Your task to perform on an android device: check google app version Image 0: 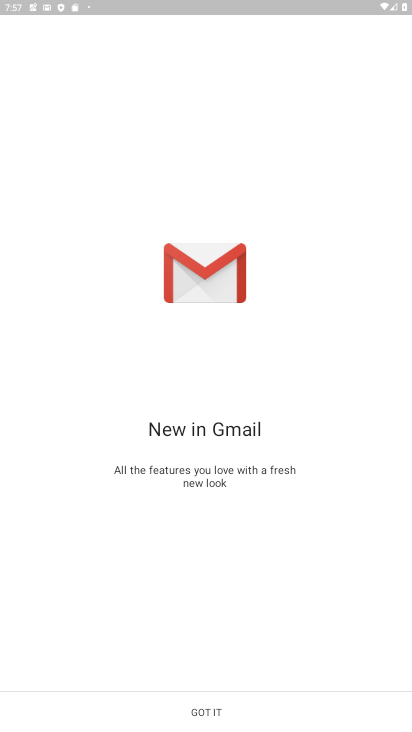
Step 0: press home button
Your task to perform on an android device: check google app version Image 1: 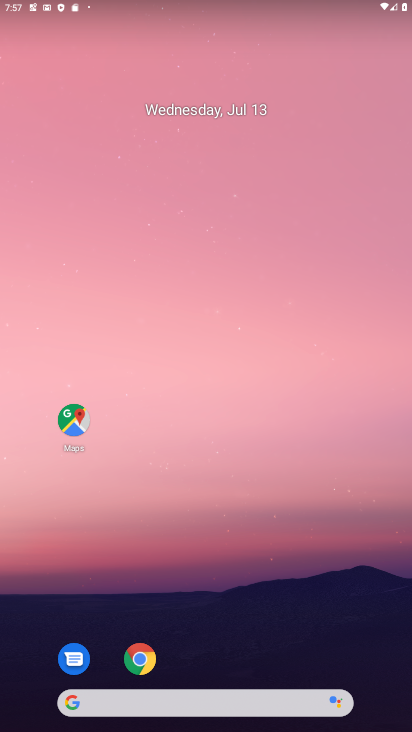
Step 1: drag from (211, 646) to (211, 70)
Your task to perform on an android device: check google app version Image 2: 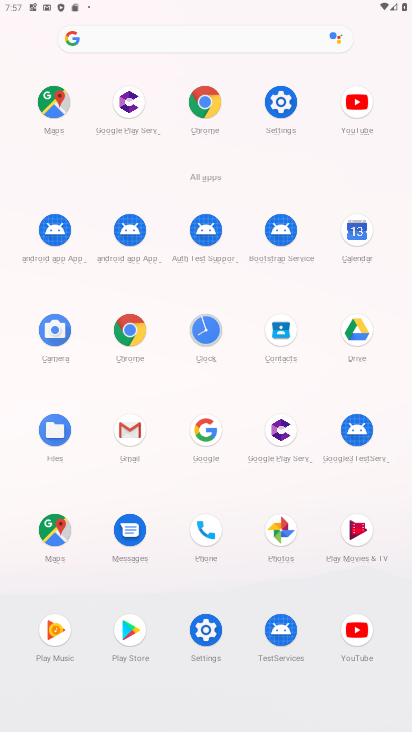
Step 2: click (197, 431)
Your task to perform on an android device: check google app version Image 3: 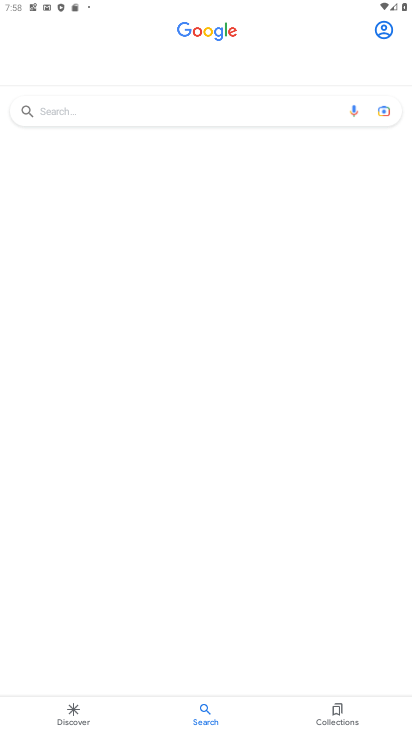
Step 3: click (382, 32)
Your task to perform on an android device: check google app version Image 4: 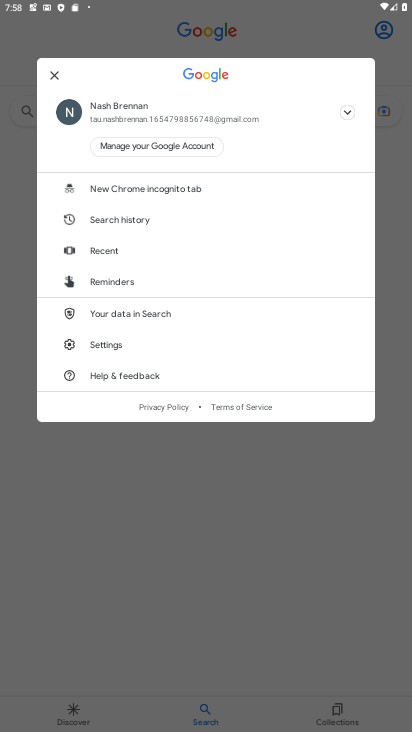
Step 4: click (110, 349)
Your task to perform on an android device: check google app version Image 5: 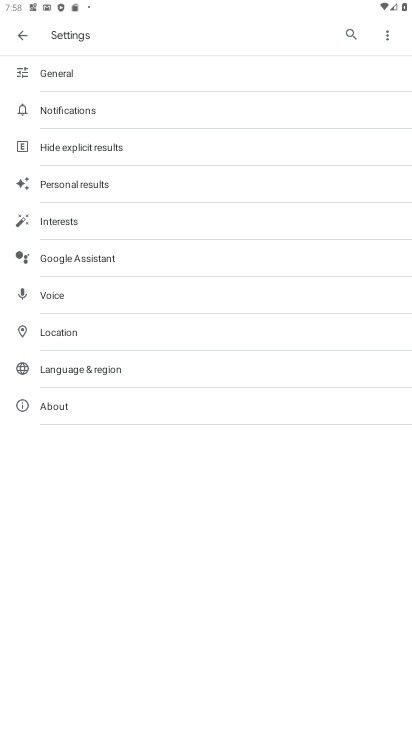
Step 5: click (70, 413)
Your task to perform on an android device: check google app version Image 6: 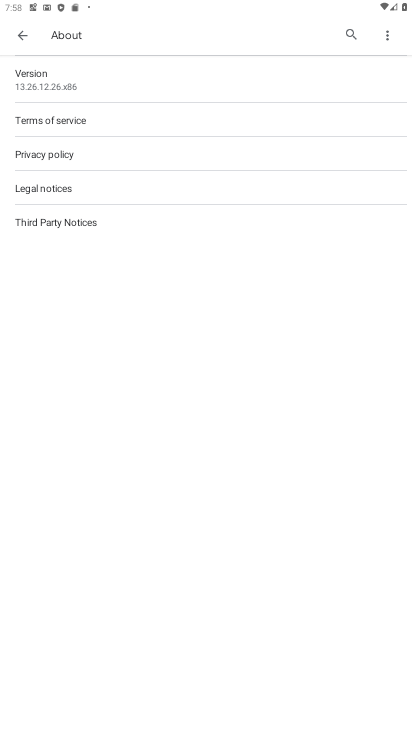
Step 6: click (124, 89)
Your task to perform on an android device: check google app version Image 7: 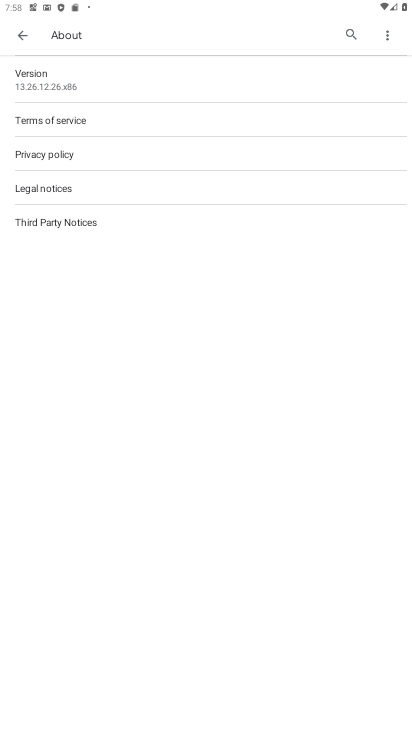
Step 7: click (124, 89)
Your task to perform on an android device: check google app version Image 8: 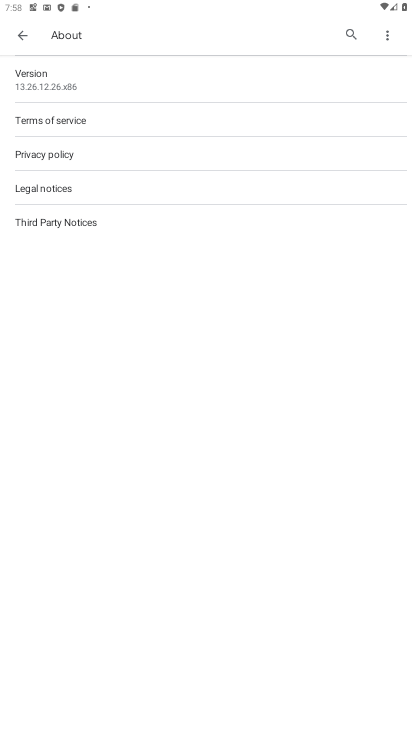
Step 8: task complete